Your task to perform on an android device: turn pop-ups on in chrome Image 0: 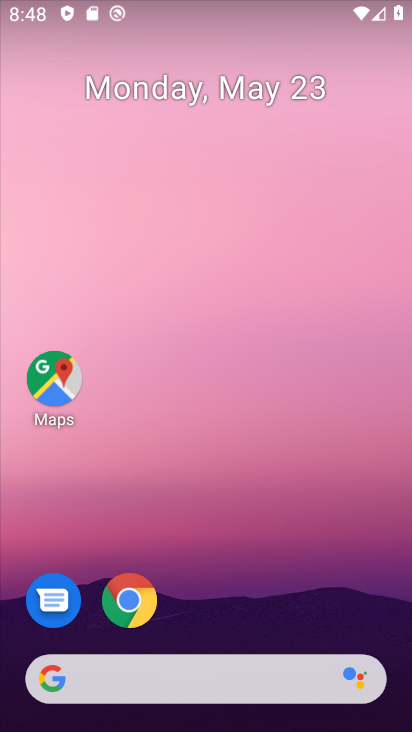
Step 0: drag from (318, 695) to (319, 142)
Your task to perform on an android device: turn pop-ups on in chrome Image 1: 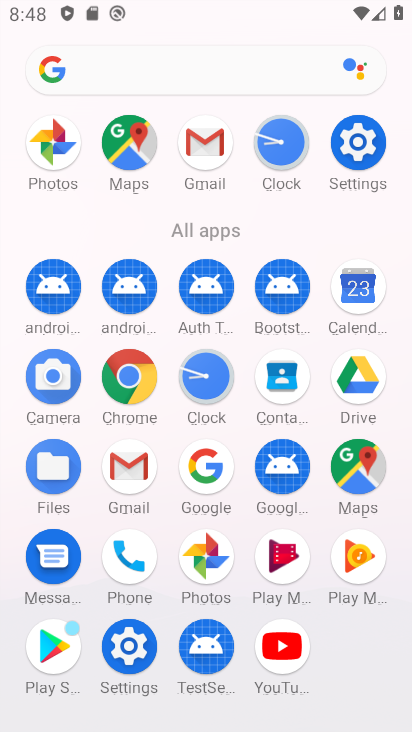
Step 1: click (150, 379)
Your task to perform on an android device: turn pop-ups on in chrome Image 2: 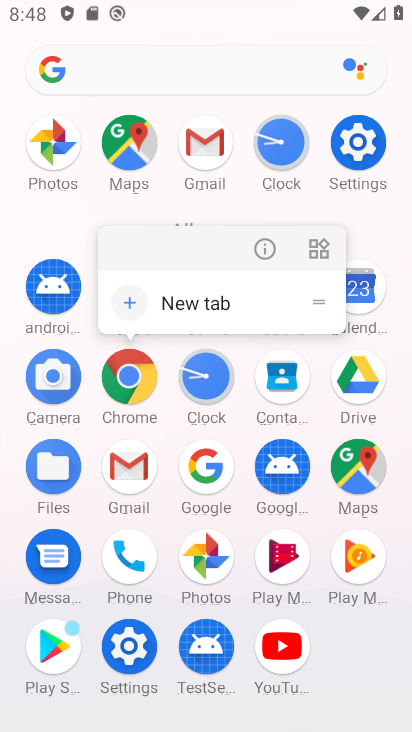
Step 2: click (110, 364)
Your task to perform on an android device: turn pop-ups on in chrome Image 3: 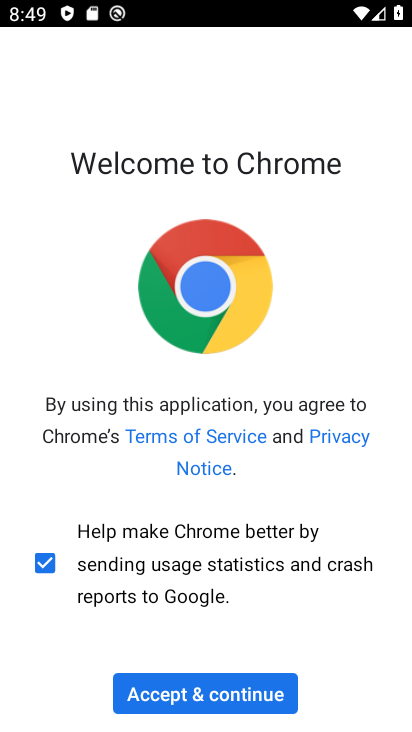
Step 3: click (228, 704)
Your task to perform on an android device: turn pop-ups on in chrome Image 4: 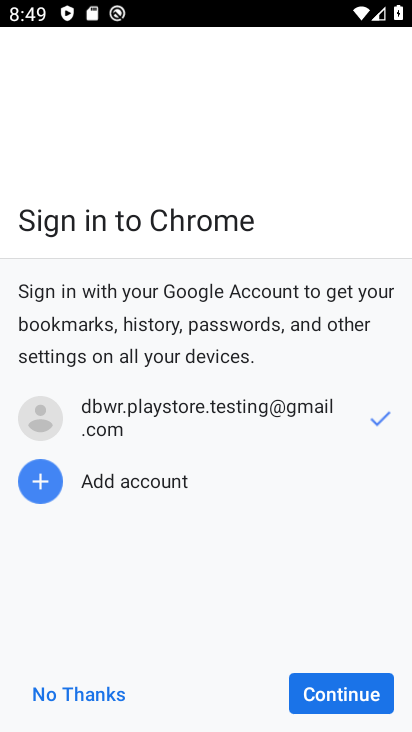
Step 4: click (114, 693)
Your task to perform on an android device: turn pop-ups on in chrome Image 5: 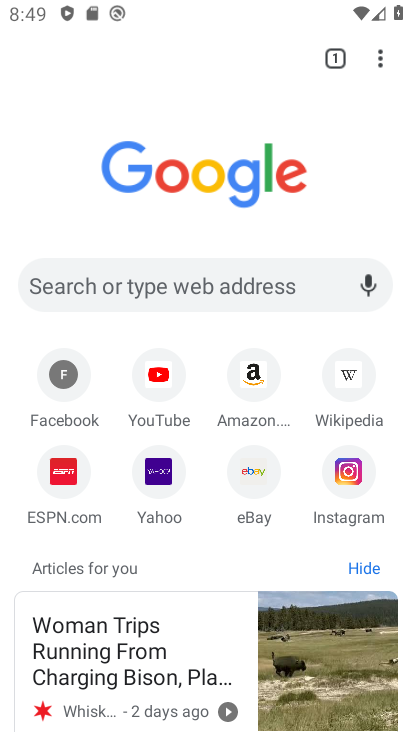
Step 5: drag from (373, 57) to (295, 482)
Your task to perform on an android device: turn pop-ups on in chrome Image 6: 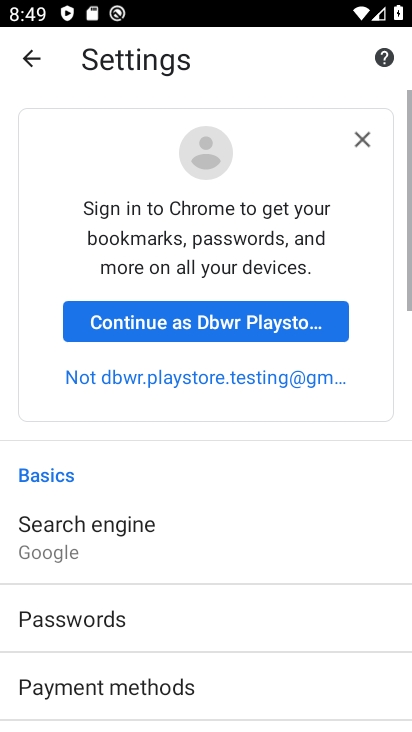
Step 6: drag from (263, 659) to (353, 189)
Your task to perform on an android device: turn pop-ups on in chrome Image 7: 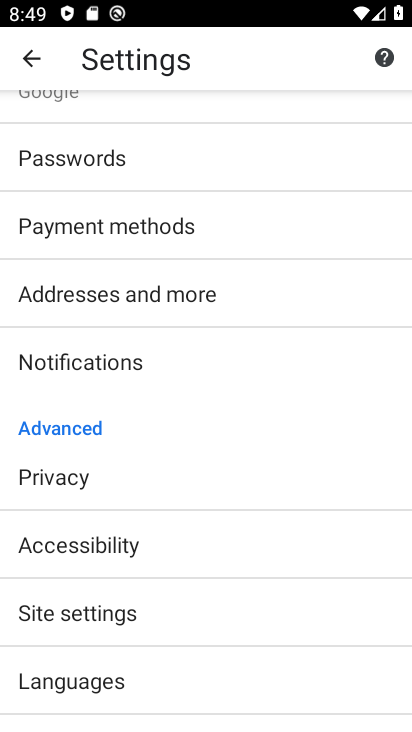
Step 7: click (158, 620)
Your task to perform on an android device: turn pop-ups on in chrome Image 8: 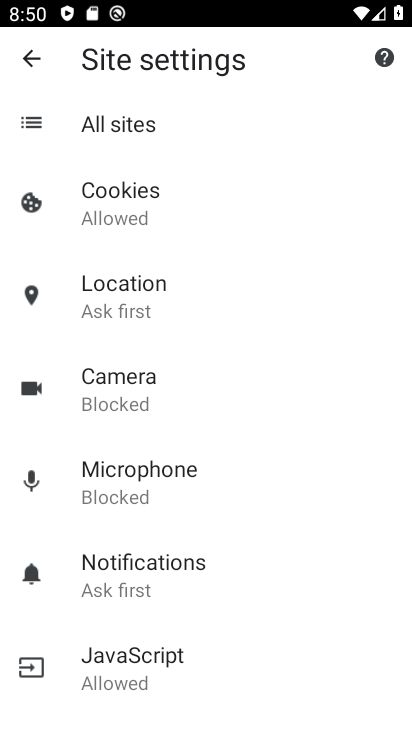
Step 8: drag from (164, 706) to (201, 375)
Your task to perform on an android device: turn pop-ups on in chrome Image 9: 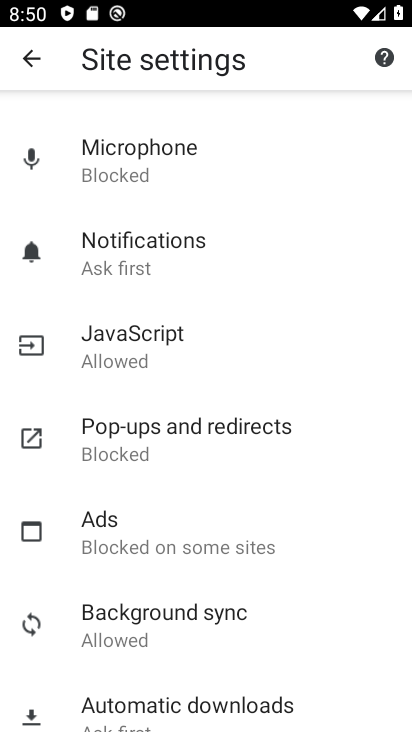
Step 9: drag from (210, 703) to (247, 504)
Your task to perform on an android device: turn pop-ups on in chrome Image 10: 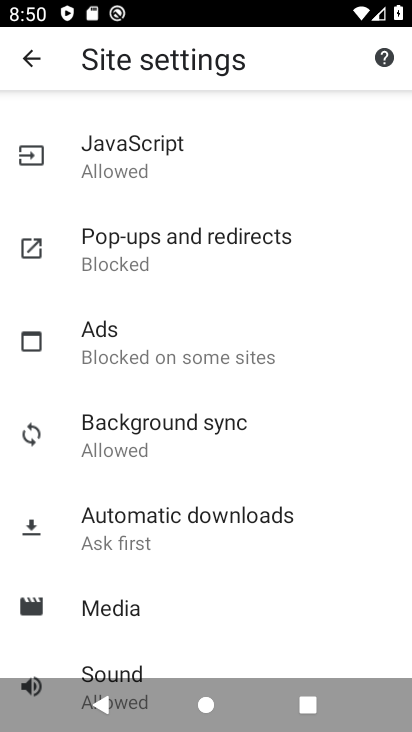
Step 10: click (216, 268)
Your task to perform on an android device: turn pop-ups on in chrome Image 11: 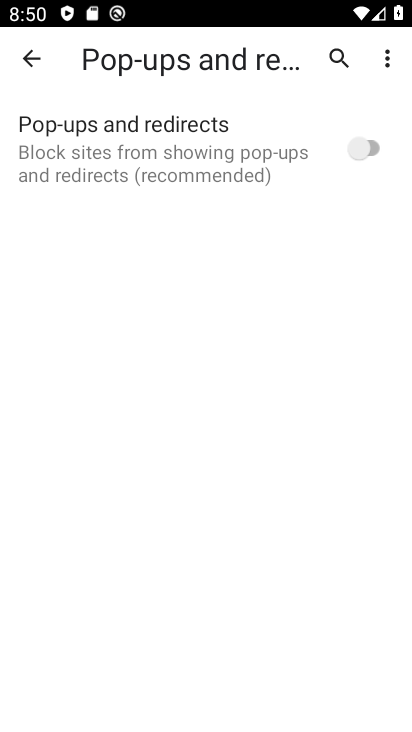
Step 11: click (371, 143)
Your task to perform on an android device: turn pop-ups on in chrome Image 12: 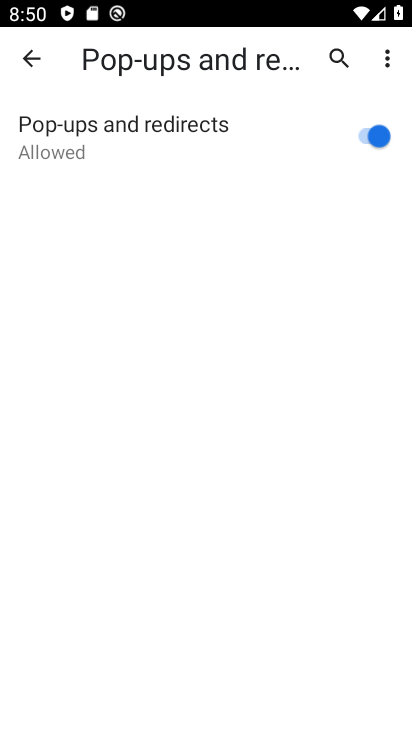
Step 12: task complete